Your task to perform on an android device: Do I have any events this weekend? Image 0: 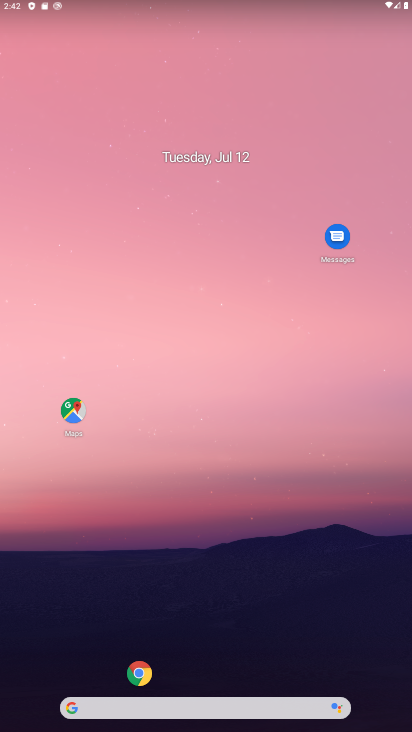
Step 0: drag from (45, 706) to (175, 171)
Your task to perform on an android device: Do I have any events this weekend? Image 1: 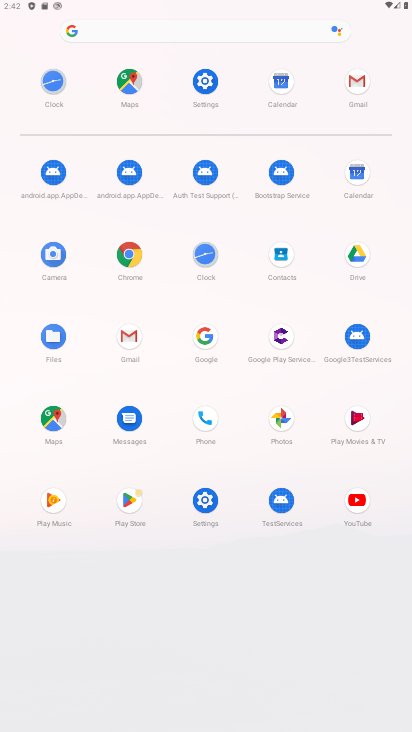
Step 1: click (284, 87)
Your task to perform on an android device: Do I have any events this weekend? Image 2: 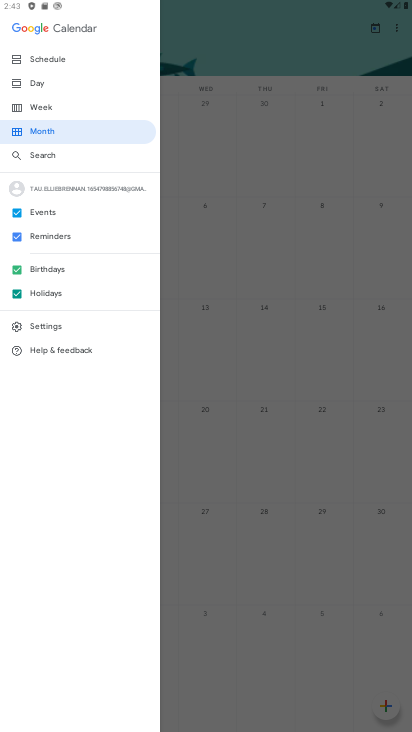
Step 2: click (200, 477)
Your task to perform on an android device: Do I have any events this weekend? Image 3: 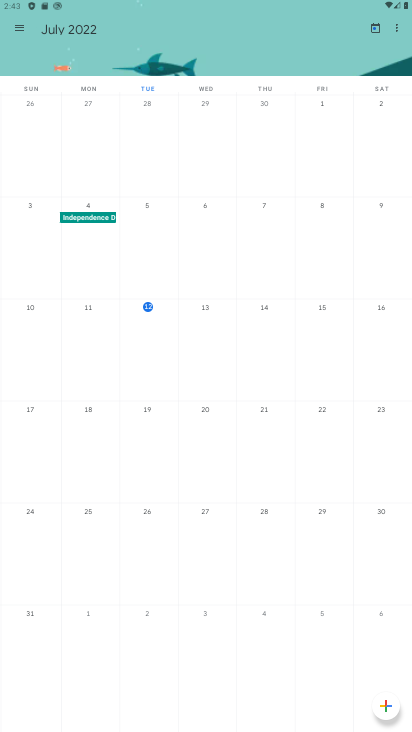
Step 3: task complete